Your task to perform on an android device: Search for pizza restaurants on Maps Image 0: 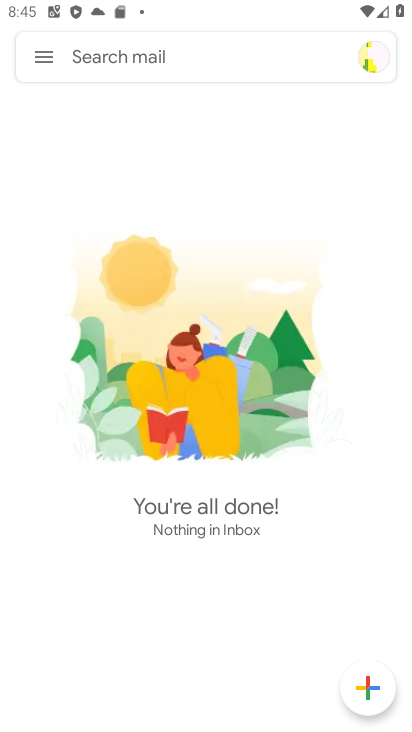
Step 0: press home button
Your task to perform on an android device: Search for pizza restaurants on Maps Image 1: 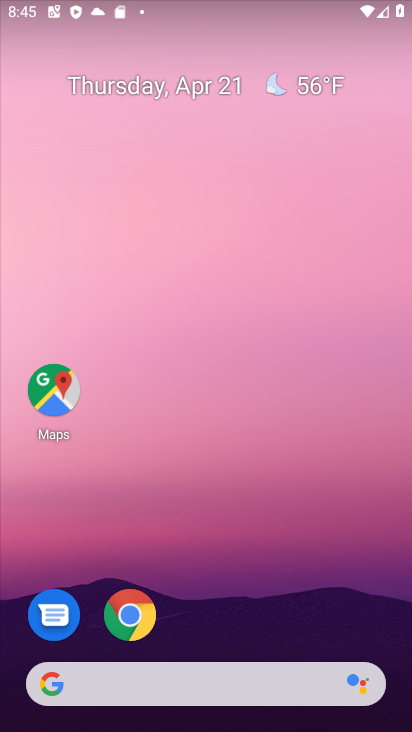
Step 1: click (54, 394)
Your task to perform on an android device: Search for pizza restaurants on Maps Image 2: 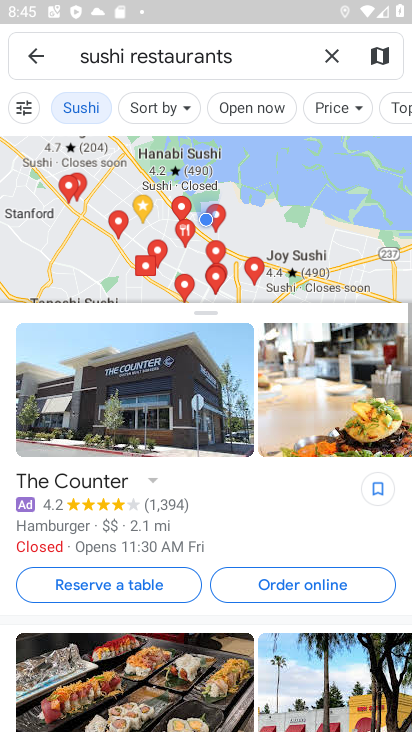
Step 2: click (328, 49)
Your task to perform on an android device: Search for pizza restaurants on Maps Image 3: 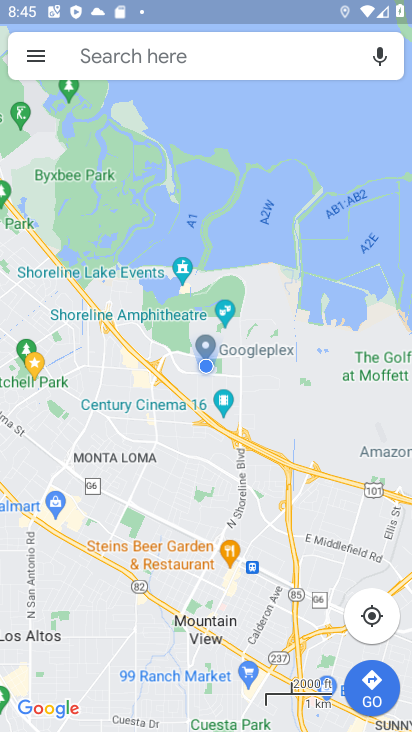
Step 3: click (210, 56)
Your task to perform on an android device: Search for pizza restaurants on Maps Image 4: 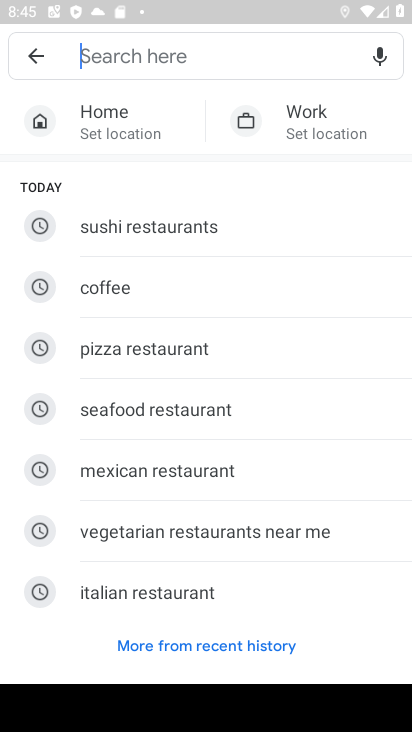
Step 4: click (147, 350)
Your task to perform on an android device: Search for pizza restaurants on Maps Image 5: 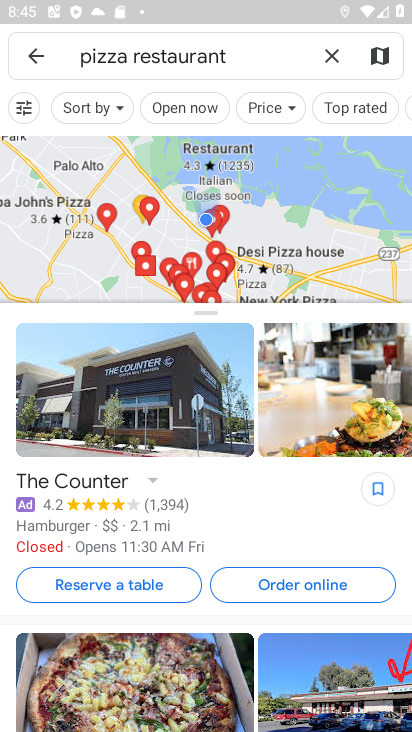
Step 5: task complete